Your task to perform on an android device: change the clock style Image 0: 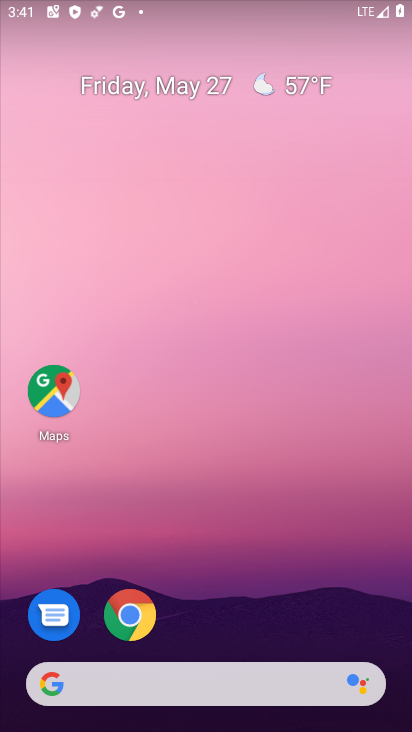
Step 0: drag from (211, 636) to (192, 157)
Your task to perform on an android device: change the clock style Image 1: 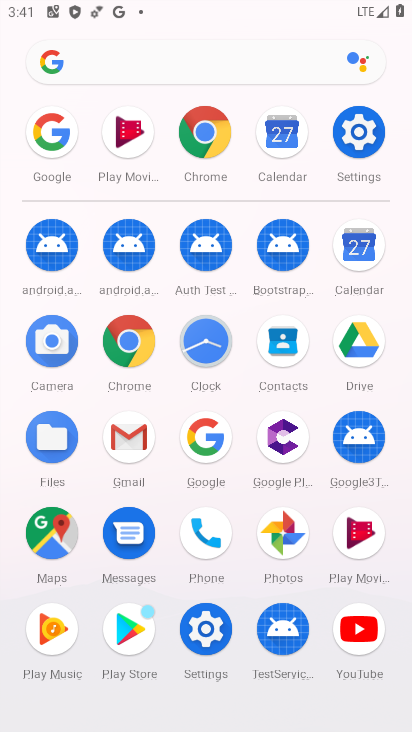
Step 1: click (209, 348)
Your task to perform on an android device: change the clock style Image 2: 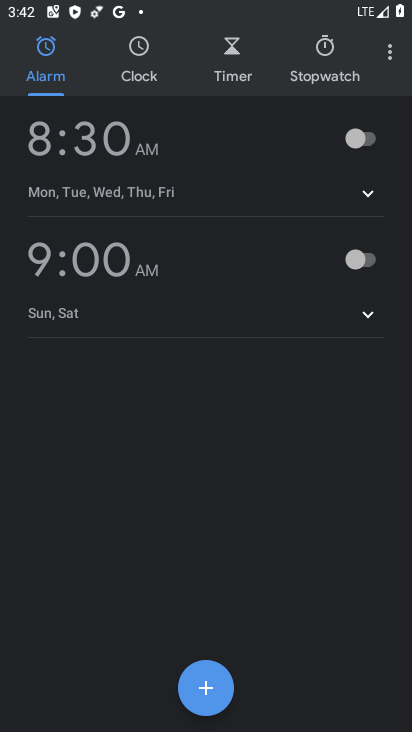
Step 2: click (391, 53)
Your task to perform on an android device: change the clock style Image 3: 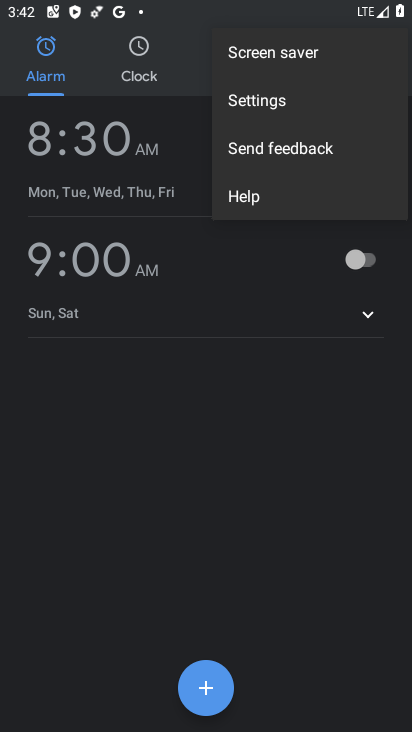
Step 3: click (316, 104)
Your task to perform on an android device: change the clock style Image 4: 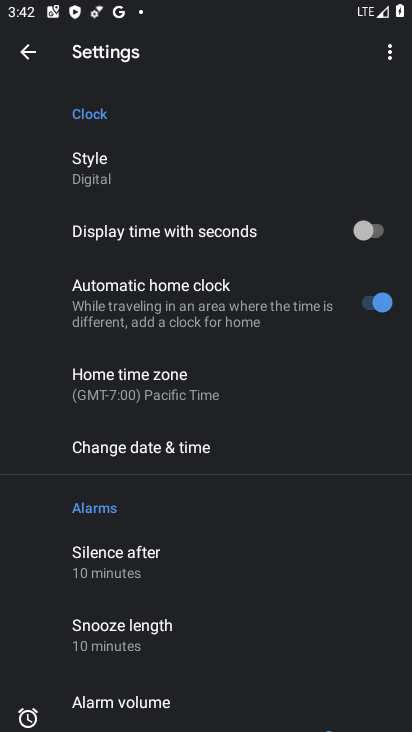
Step 4: click (99, 173)
Your task to perform on an android device: change the clock style Image 5: 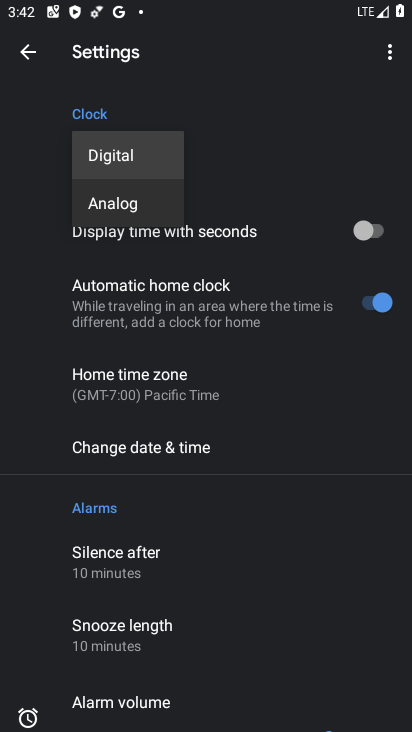
Step 5: click (127, 208)
Your task to perform on an android device: change the clock style Image 6: 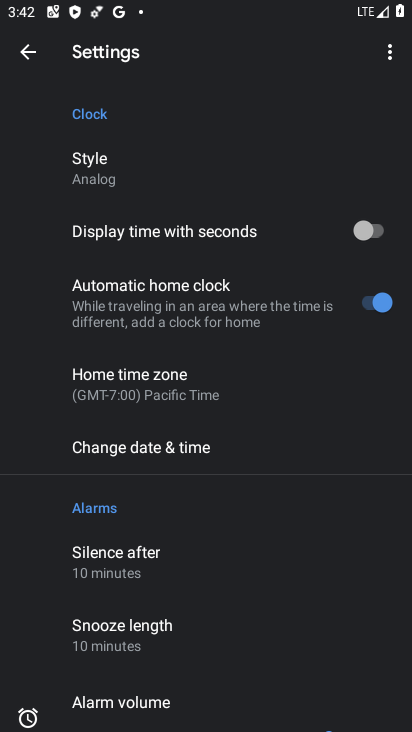
Step 6: task complete